Your task to perform on an android device: turn on improve location accuracy Image 0: 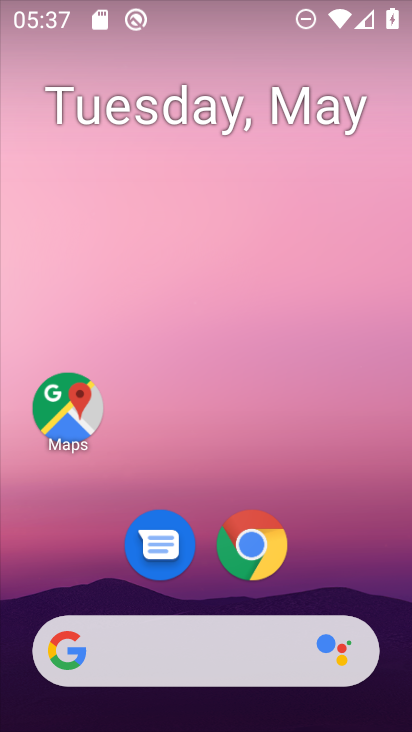
Step 0: drag from (320, 584) to (294, 63)
Your task to perform on an android device: turn on improve location accuracy Image 1: 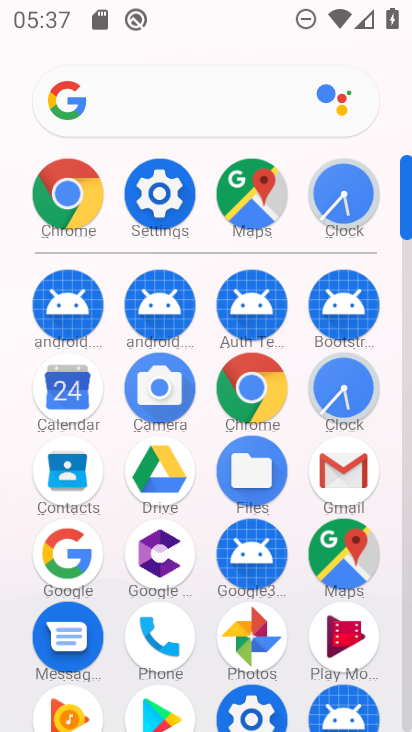
Step 1: click (250, 191)
Your task to perform on an android device: turn on improve location accuracy Image 2: 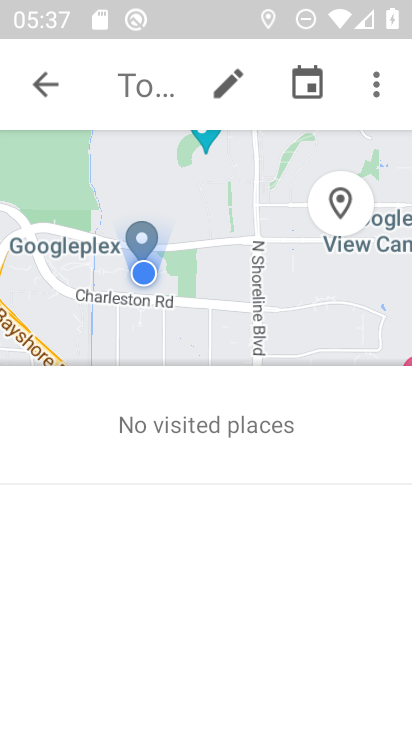
Step 2: click (33, 76)
Your task to perform on an android device: turn on improve location accuracy Image 3: 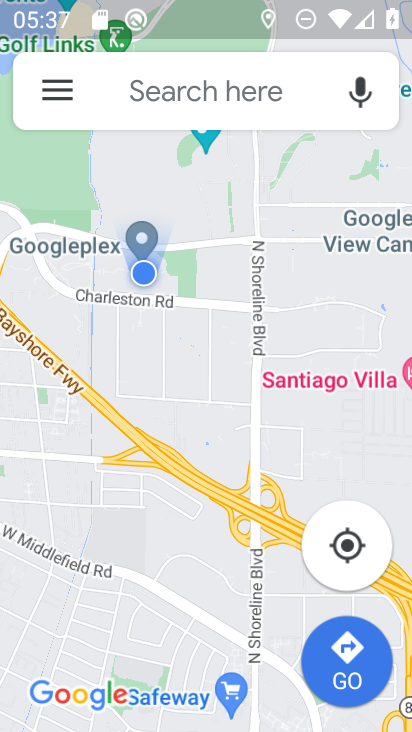
Step 3: click (60, 74)
Your task to perform on an android device: turn on improve location accuracy Image 4: 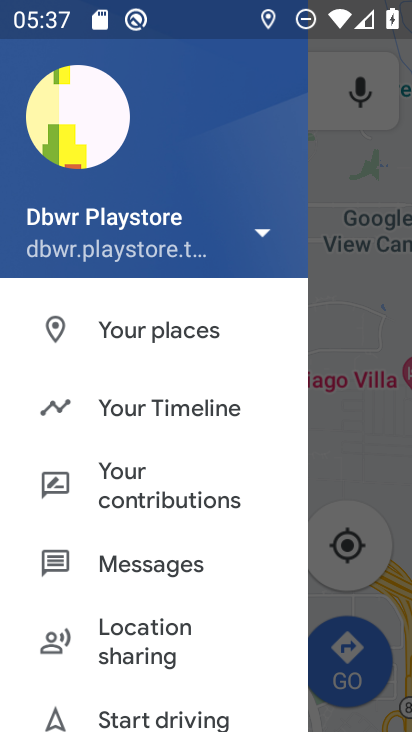
Step 4: drag from (178, 611) to (240, 197)
Your task to perform on an android device: turn on improve location accuracy Image 5: 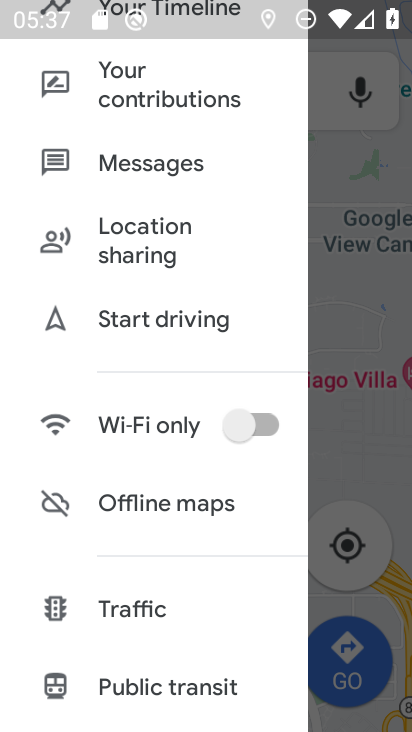
Step 5: drag from (121, 658) to (187, 244)
Your task to perform on an android device: turn on improve location accuracy Image 6: 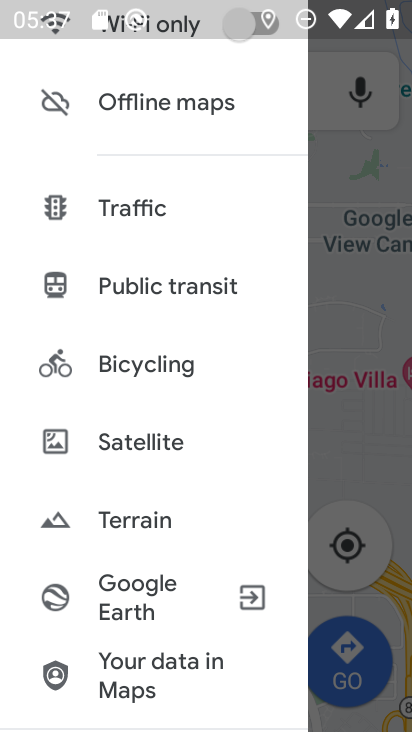
Step 6: drag from (128, 596) to (142, 183)
Your task to perform on an android device: turn on improve location accuracy Image 7: 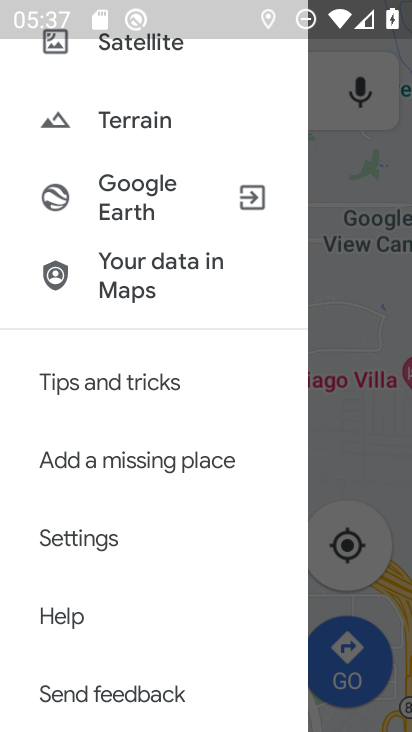
Step 7: click (100, 540)
Your task to perform on an android device: turn on improve location accuracy Image 8: 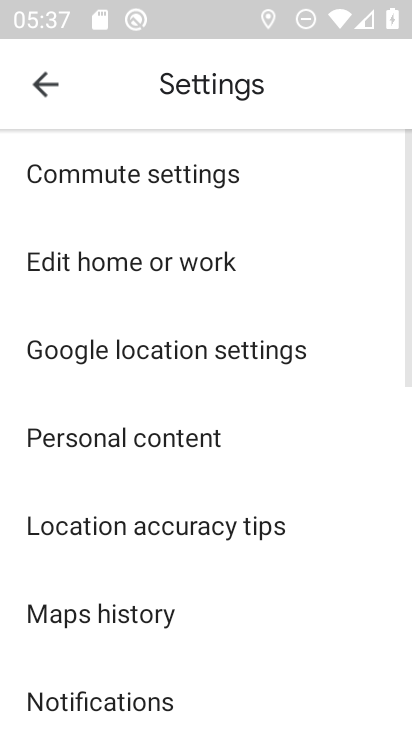
Step 8: drag from (219, 589) to (245, 181)
Your task to perform on an android device: turn on improve location accuracy Image 9: 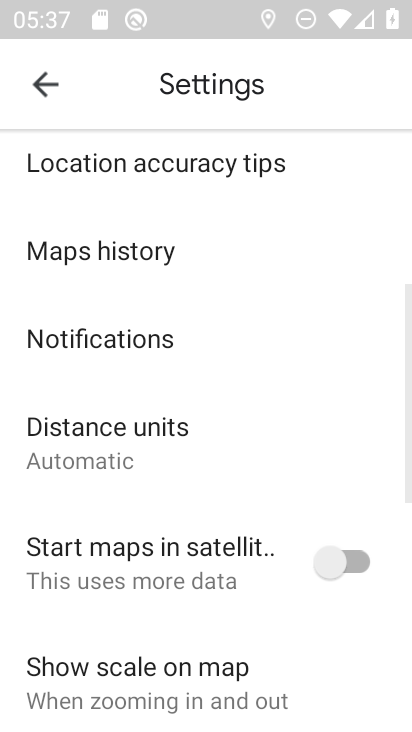
Step 9: drag from (249, 203) to (247, 599)
Your task to perform on an android device: turn on improve location accuracy Image 10: 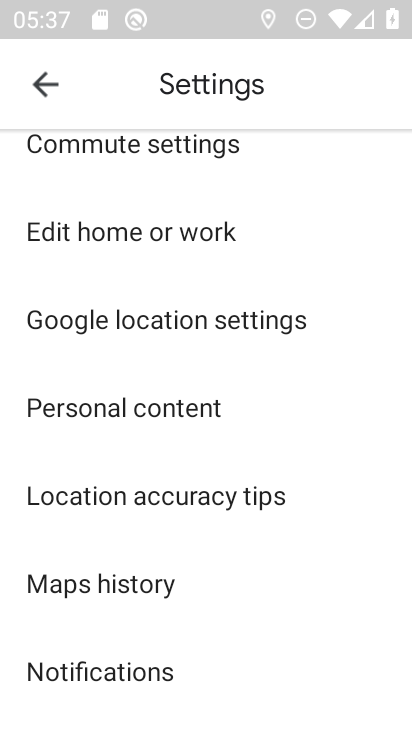
Step 10: click (226, 316)
Your task to perform on an android device: turn on improve location accuracy Image 11: 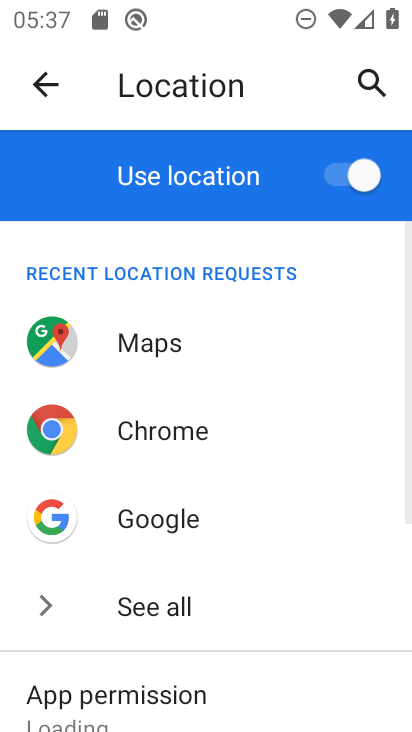
Step 11: drag from (161, 613) to (219, 177)
Your task to perform on an android device: turn on improve location accuracy Image 12: 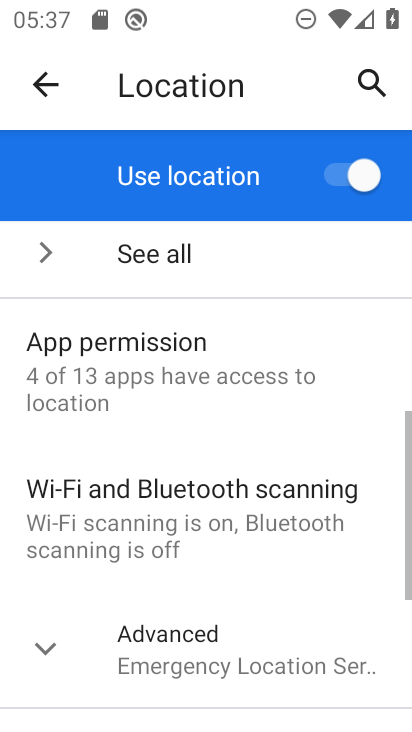
Step 12: drag from (177, 672) to (206, 201)
Your task to perform on an android device: turn on improve location accuracy Image 13: 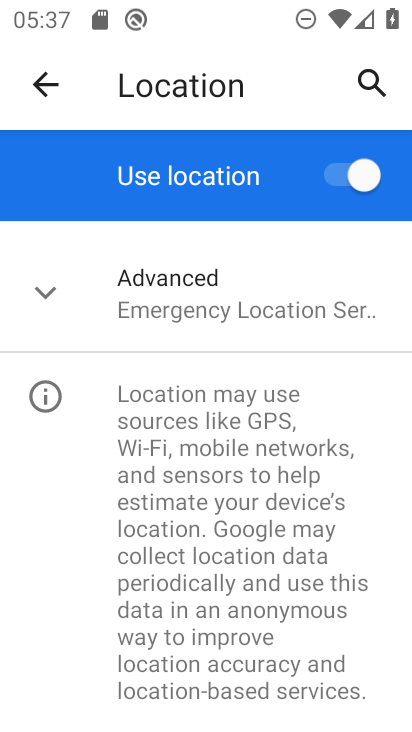
Step 13: drag from (126, 565) to (199, 175)
Your task to perform on an android device: turn on improve location accuracy Image 14: 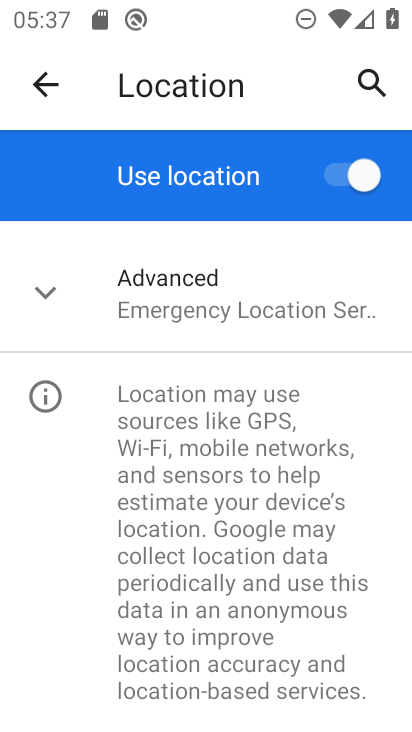
Step 14: click (81, 311)
Your task to perform on an android device: turn on improve location accuracy Image 15: 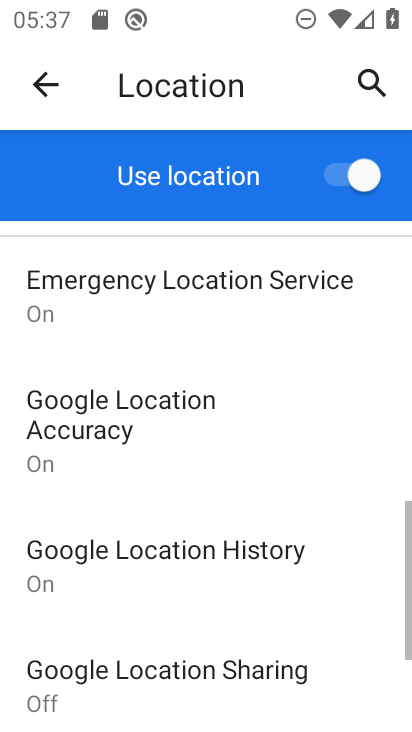
Step 15: drag from (297, 678) to (307, 310)
Your task to perform on an android device: turn on improve location accuracy Image 16: 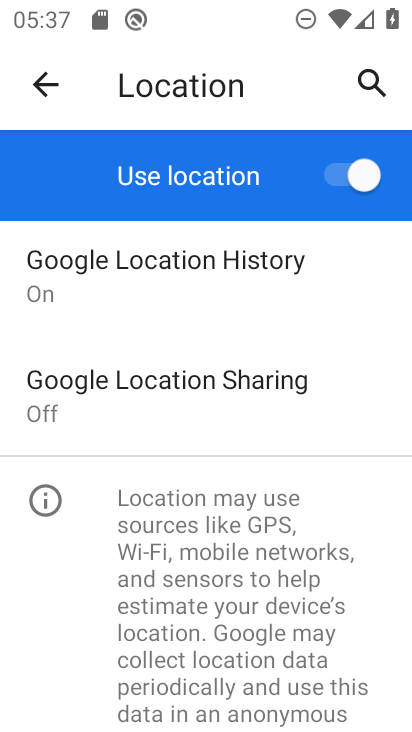
Step 16: drag from (259, 317) to (257, 615)
Your task to perform on an android device: turn on improve location accuracy Image 17: 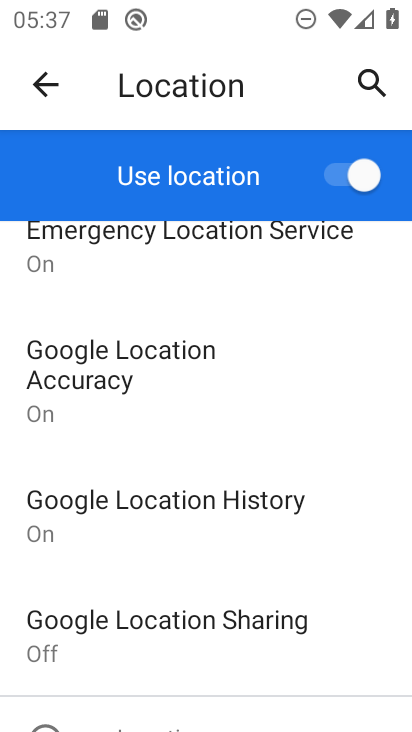
Step 17: click (112, 368)
Your task to perform on an android device: turn on improve location accuracy Image 18: 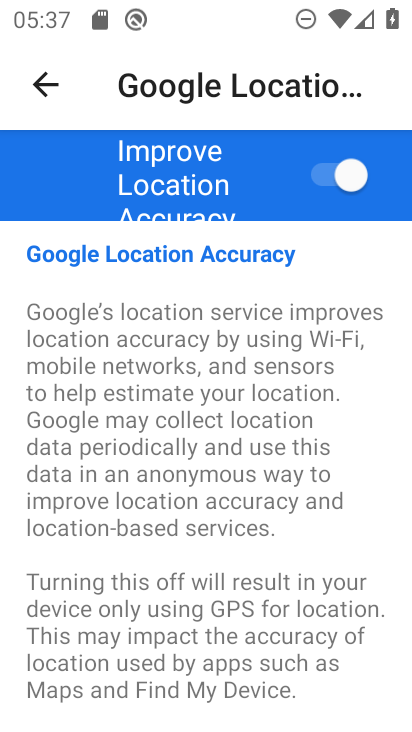
Step 18: task complete